Your task to perform on an android device: install app "Adobe Acrobat Reader" Image 0: 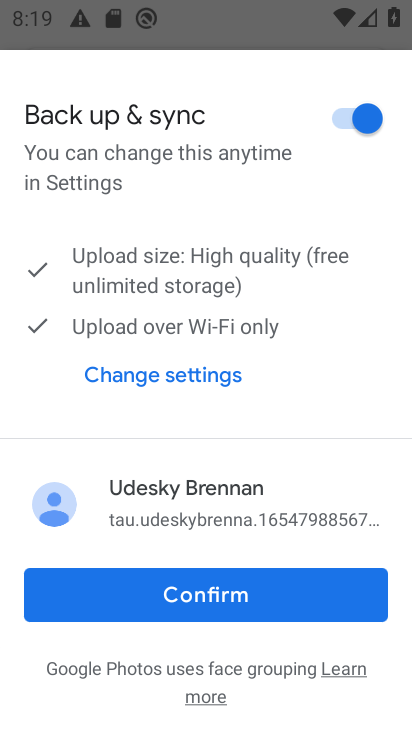
Step 0: click (203, 583)
Your task to perform on an android device: install app "Adobe Acrobat Reader" Image 1: 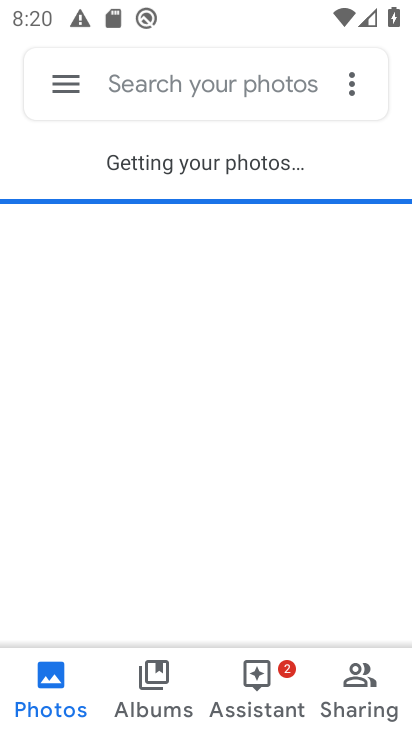
Step 1: press home button
Your task to perform on an android device: install app "Adobe Acrobat Reader" Image 2: 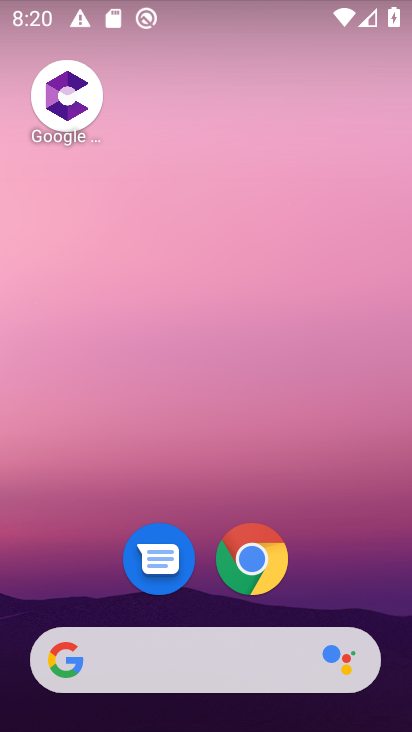
Step 2: drag from (207, 613) to (208, 121)
Your task to perform on an android device: install app "Adobe Acrobat Reader" Image 3: 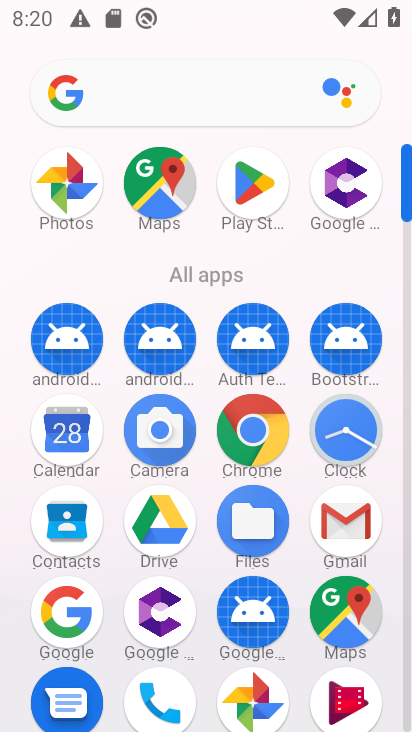
Step 3: click (242, 190)
Your task to perform on an android device: install app "Adobe Acrobat Reader" Image 4: 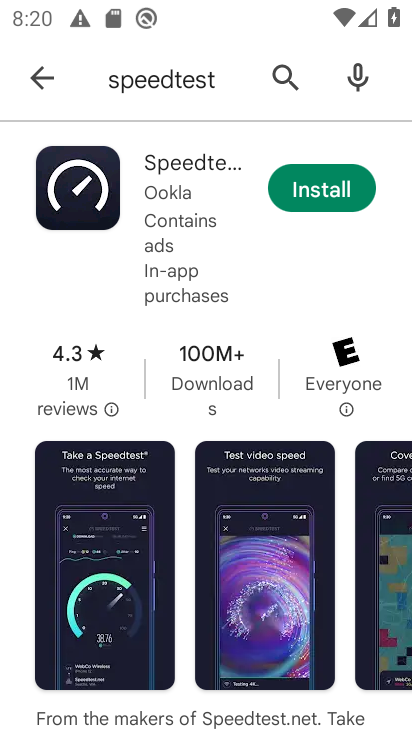
Step 4: click (341, 91)
Your task to perform on an android device: install app "Adobe Acrobat Reader" Image 5: 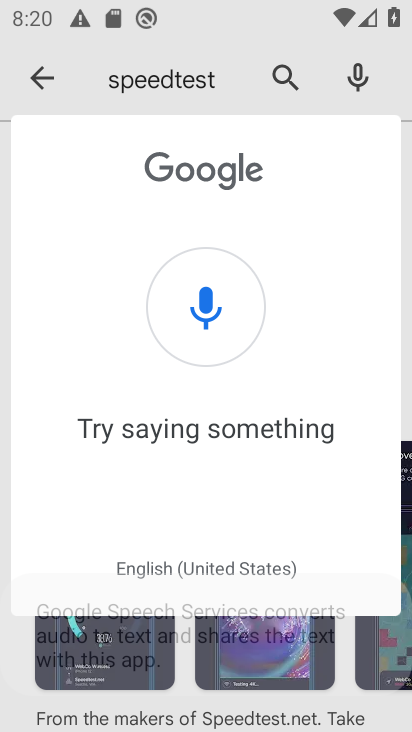
Step 5: click (280, 82)
Your task to perform on an android device: install app "Adobe Acrobat Reader" Image 6: 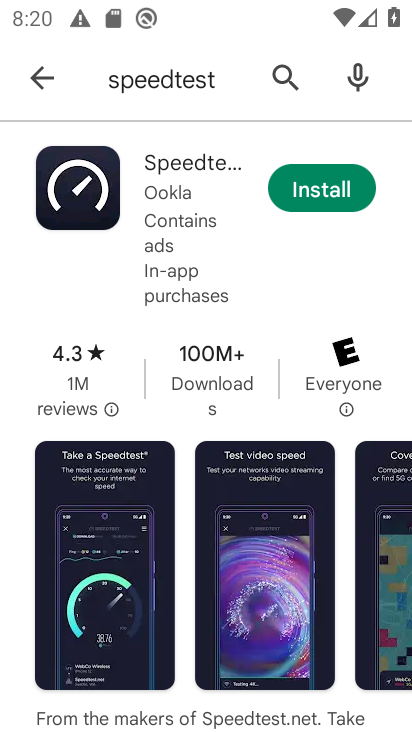
Step 6: click (286, 75)
Your task to perform on an android device: install app "Adobe Acrobat Reader" Image 7: 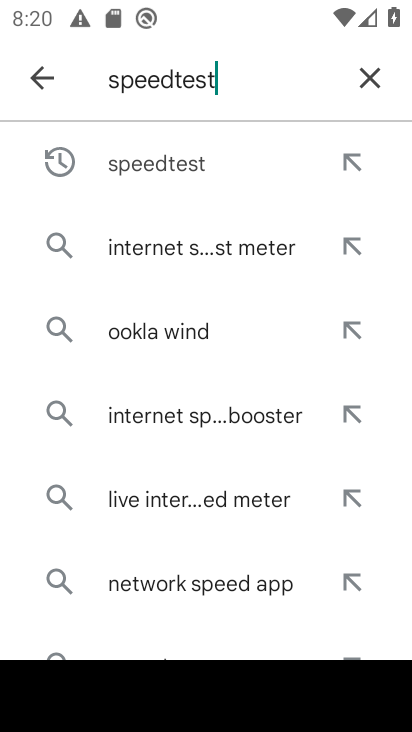
Step 7: click (374, 68)
Your task to perform on an android device: install app "Adobe Acrobat Reader" Image 8: 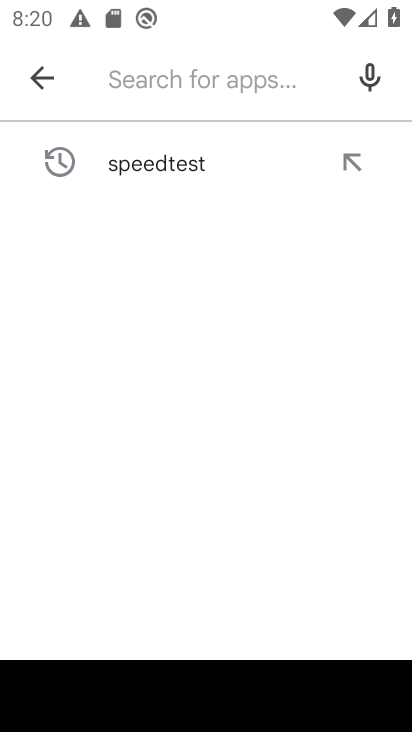
Step 8: type "adobe acrobat"
Your task to perform on an android device: install app "Adobe Acrobat Reader" Image 9: 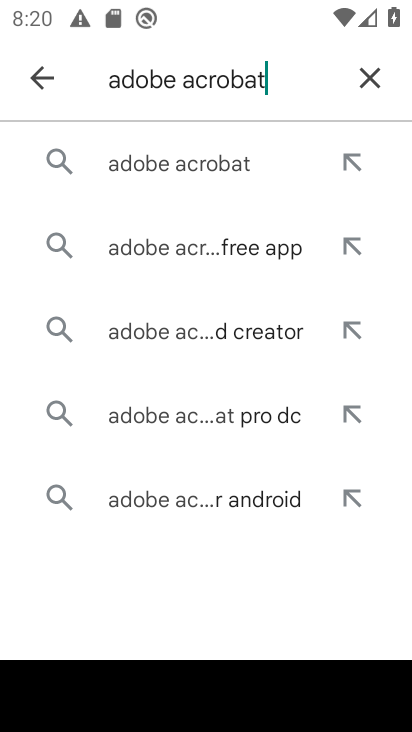
Step 9: click (211, 179)
Your task to perform on an android device: install app "Adobe Acrobat Reader" Image 10: 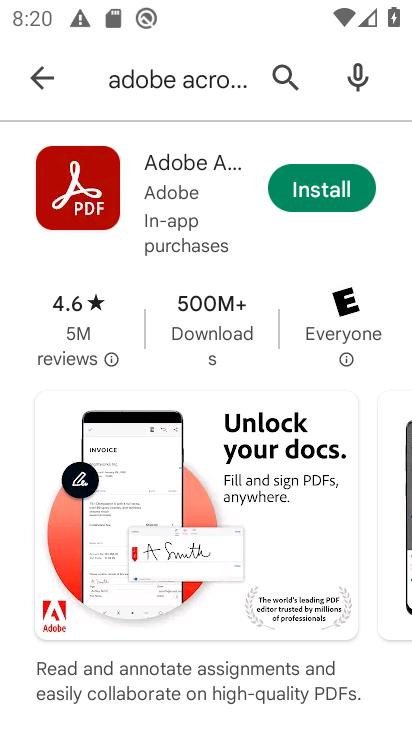
Step 10: click (291, 187)
Your task to perform on an android device: install app "Adobe Acrobat Reader" Image 11: 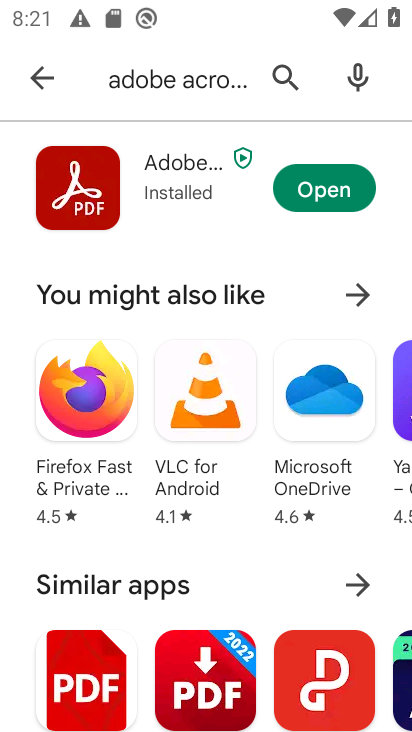
Step 11: task complete